Your task to perform on an android device: see tabs open on other devices in the chrome app Image 0: 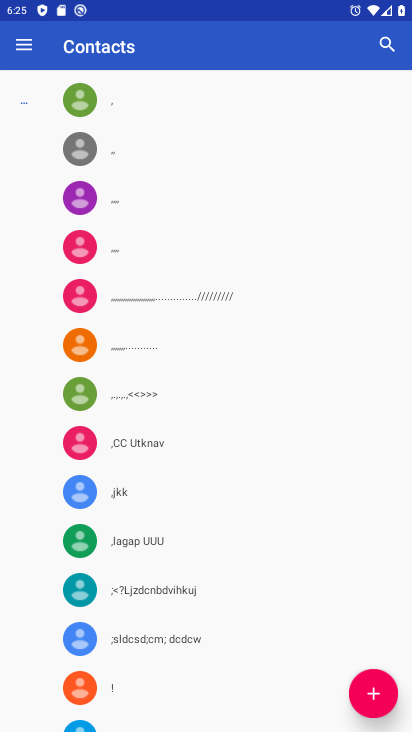
Step 0: press home button
Your task to perform on an android device: see tabs open on other devices in the chrome app Image 1: 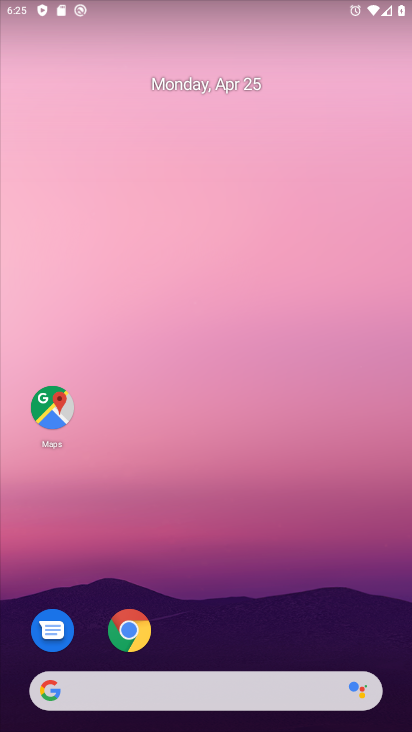
Step 1: click (123, 631)
Your task to perform on an android device: see tabs open on other devices in the chrome app Image 2: 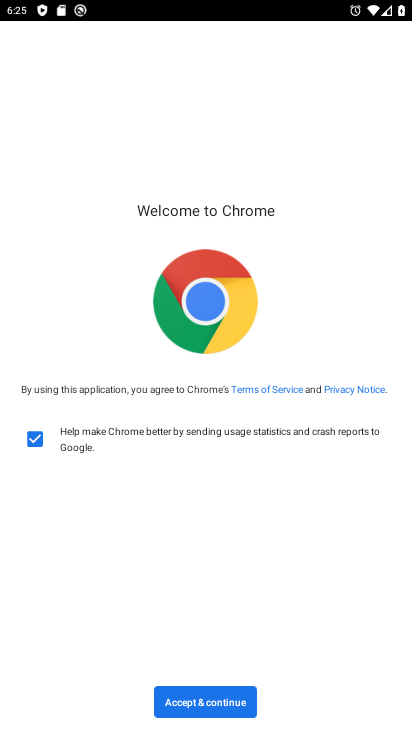
Step 2: click (207, 694)
Your task to perform on an android device: see tabs open on other devices in the chrome app Image 3: 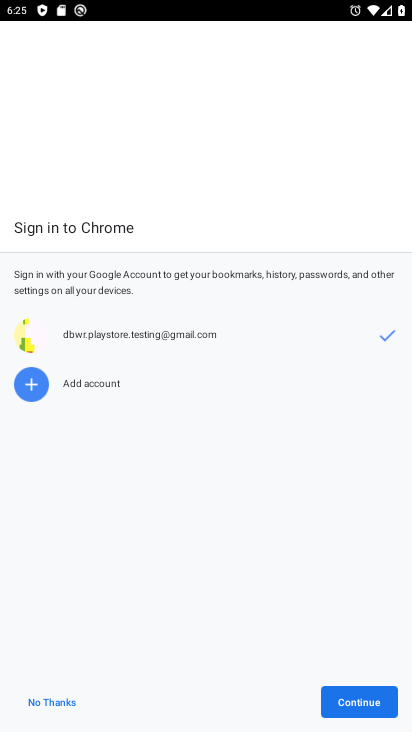
Step 3: click (359, 705)
Your task to perform on an android device: see tabs open on other devices in the chrome app Image 4: 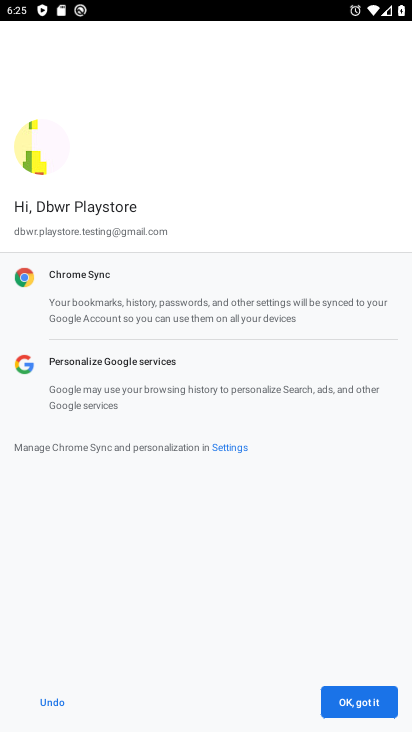
Step 4: click (359, 705)
Your task to perform on an android device: see tabs open on other devices in the chrome app Image 5: 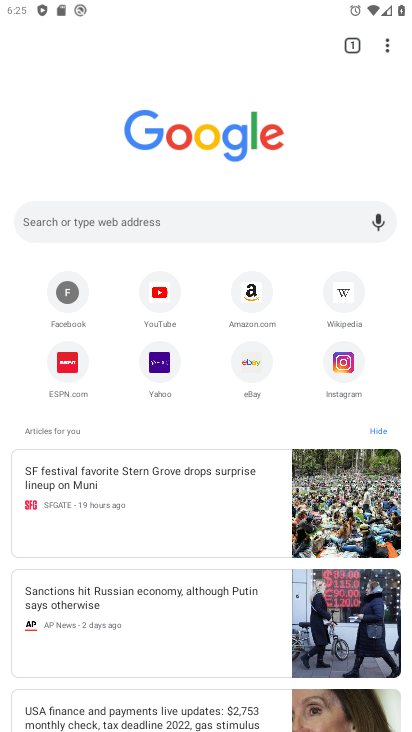
Step 5: click (381, 44)
Your task to perform on an android device: see tabs open on other devices in the chrome app Image 6: 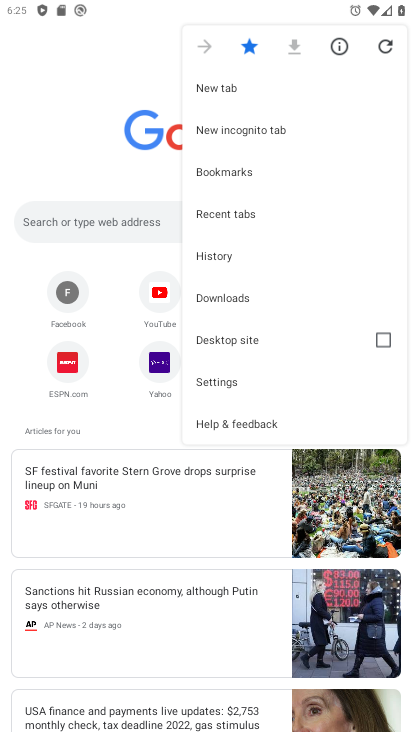
Step 6: click (257, 216)
Your task to perform on an android device: see tabs open on other devices in the chrome app Image 7: 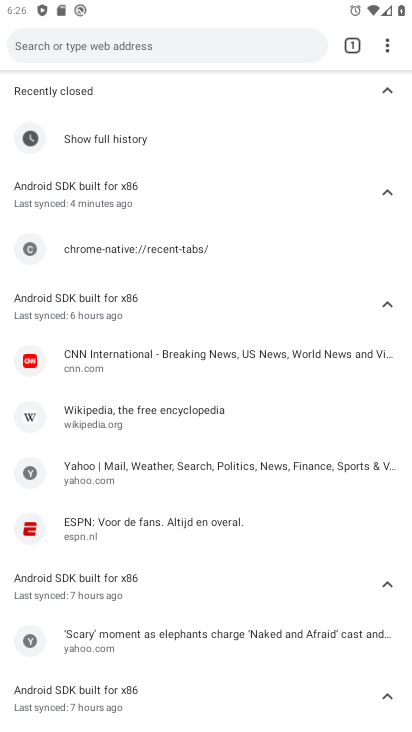
Step 7: task complete